Your task to perform on an android device: Do I have any events this weekend? Image 0: 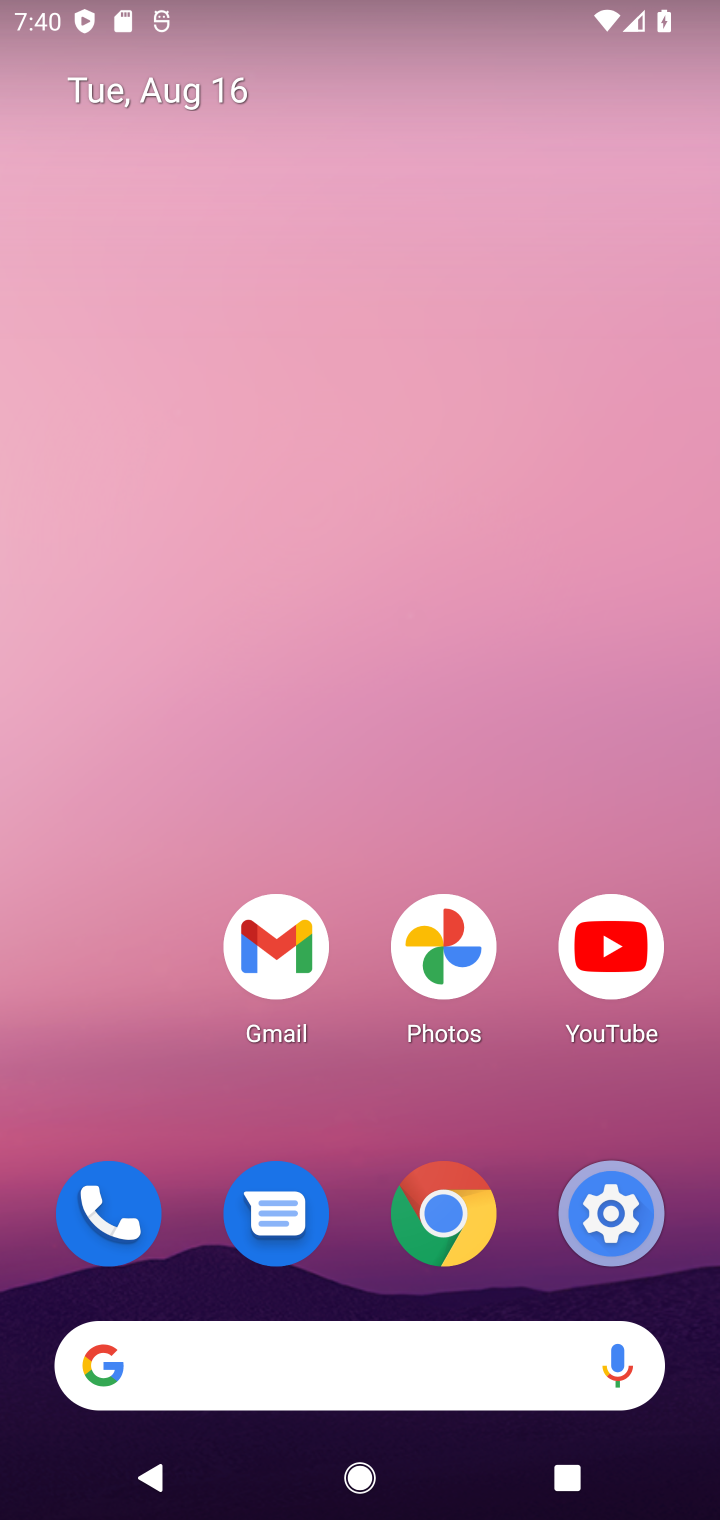
Step 0: drag from (356, 1283) to (382, 98)
Your task to perform on an android device: Do I have any events this weekend? Image 1: 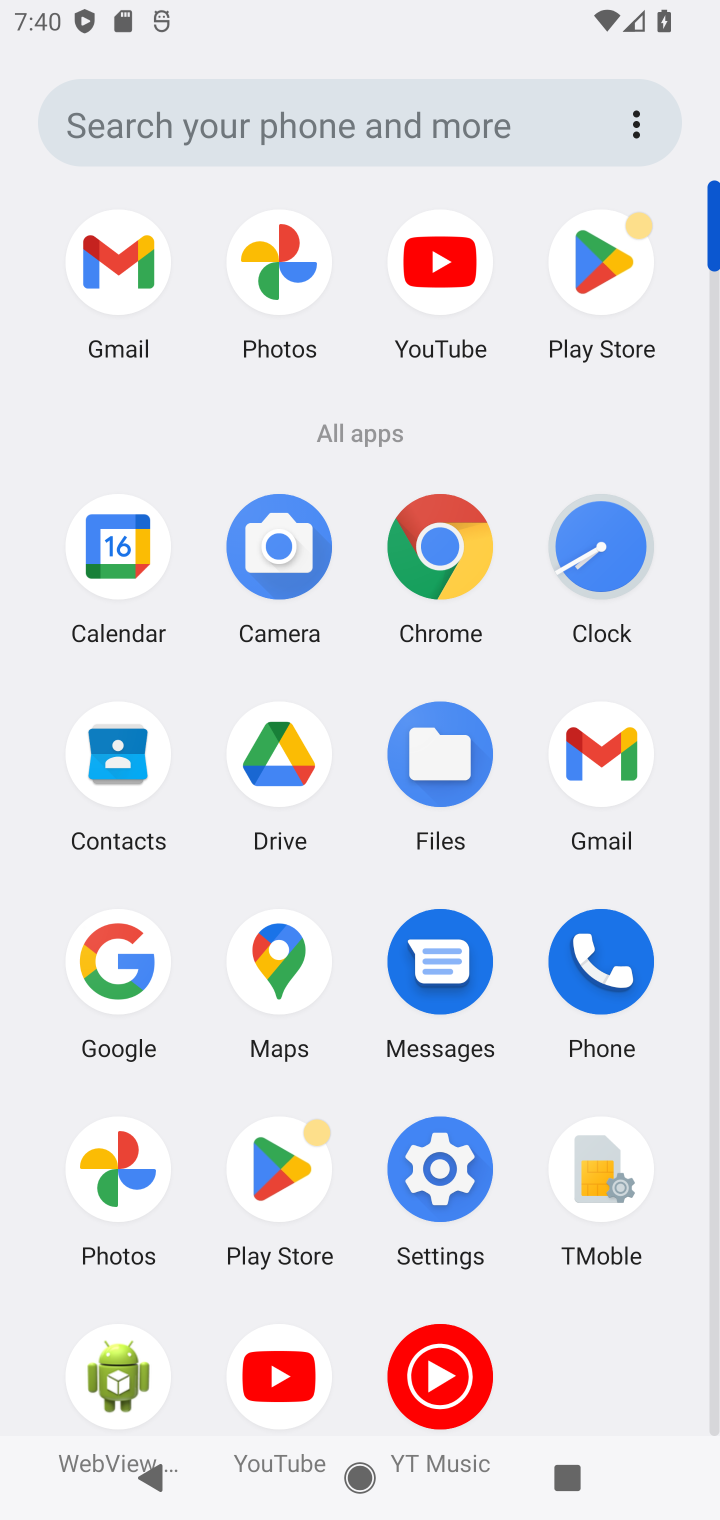
Step 1: click (432, 261)
Your task to perform on an android device: Do I have any events this weekend? Image 2: 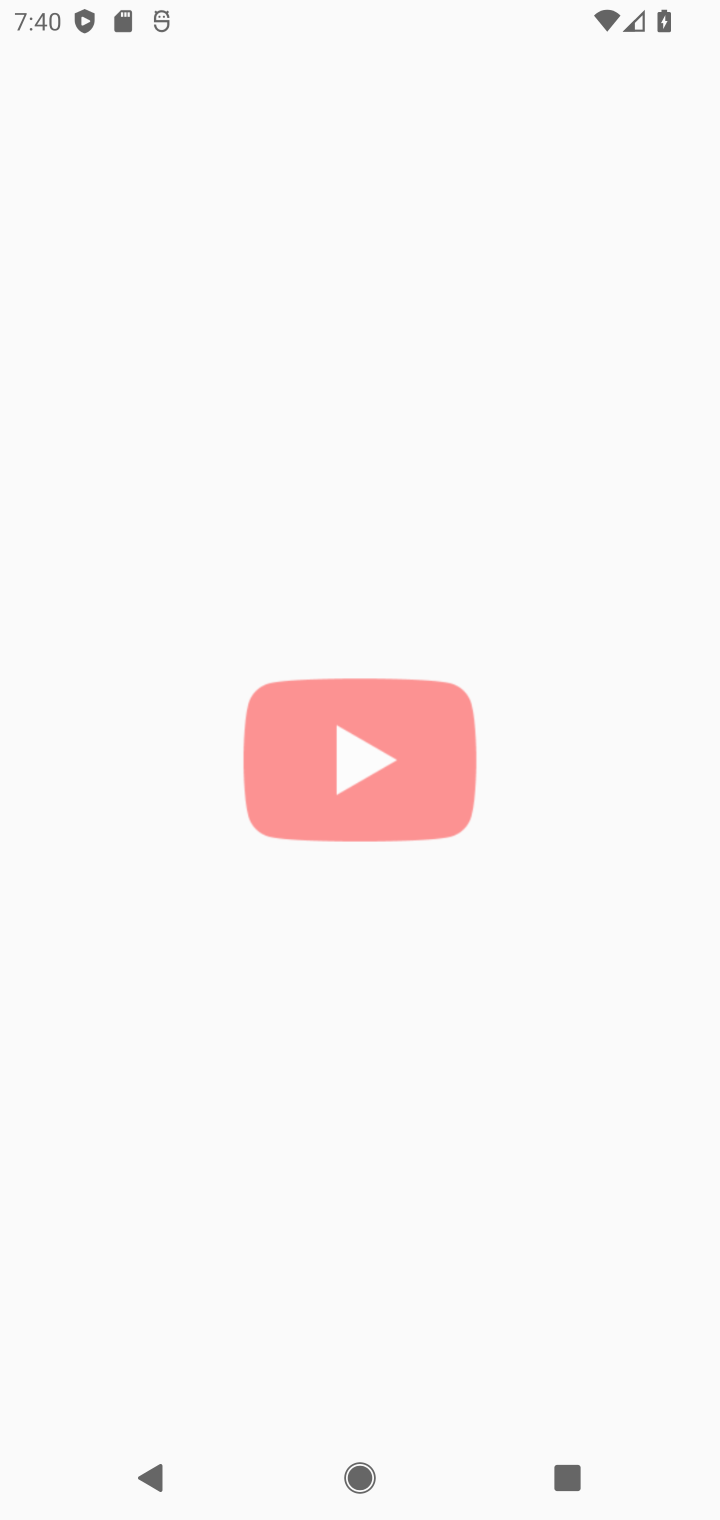
Step 2: press home button
Your task to perform on an android device: Do I have any events this weekend? Image 3: 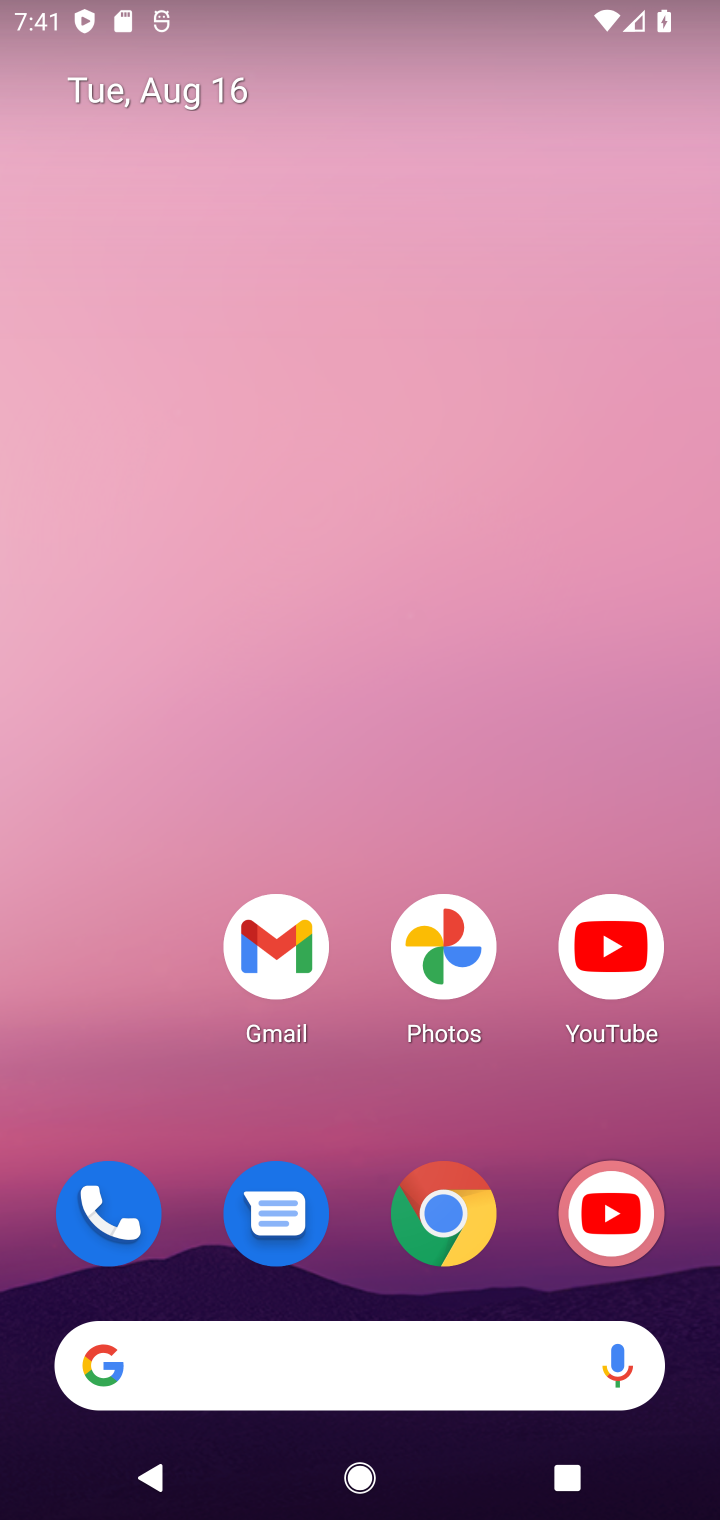
Step 3: drag from (372, 1317) to (392, 0)
Your task to perform on an android device: Do I have any events this weekend? Image 4: 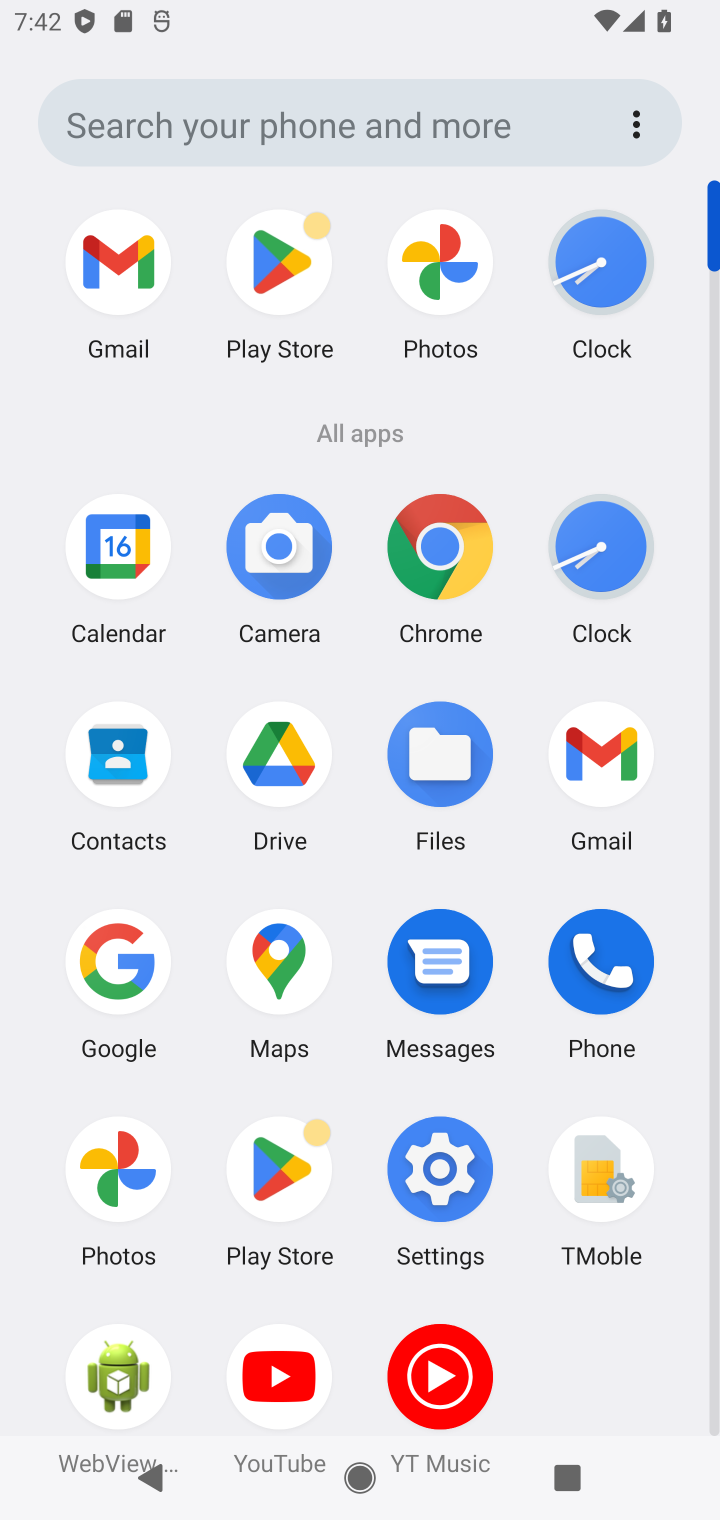
Step 4: click (148, 552)
Your task to perform on an android device: Do I have any events this weekend? Image 5: 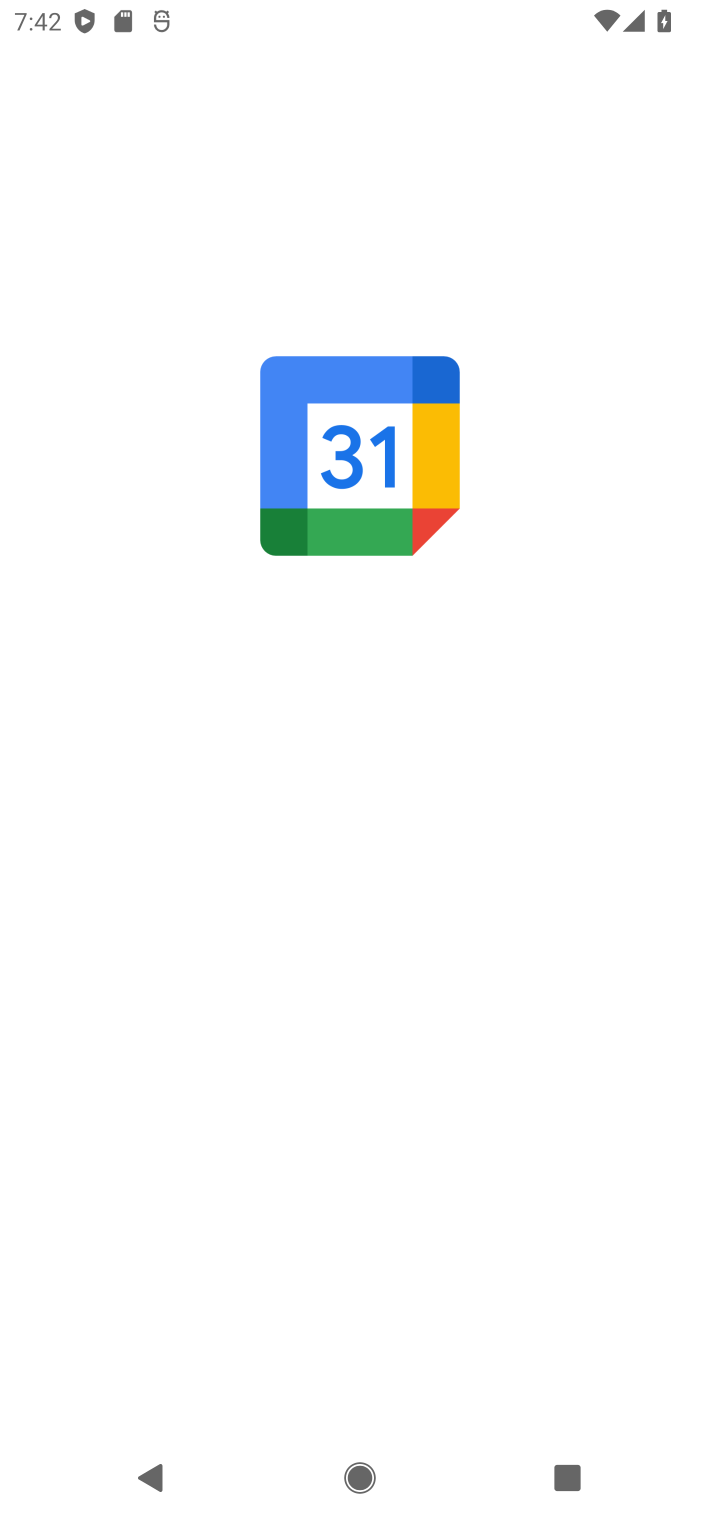
Step 5: task complete